Your task to perform on an android device: Check the news Image 0: 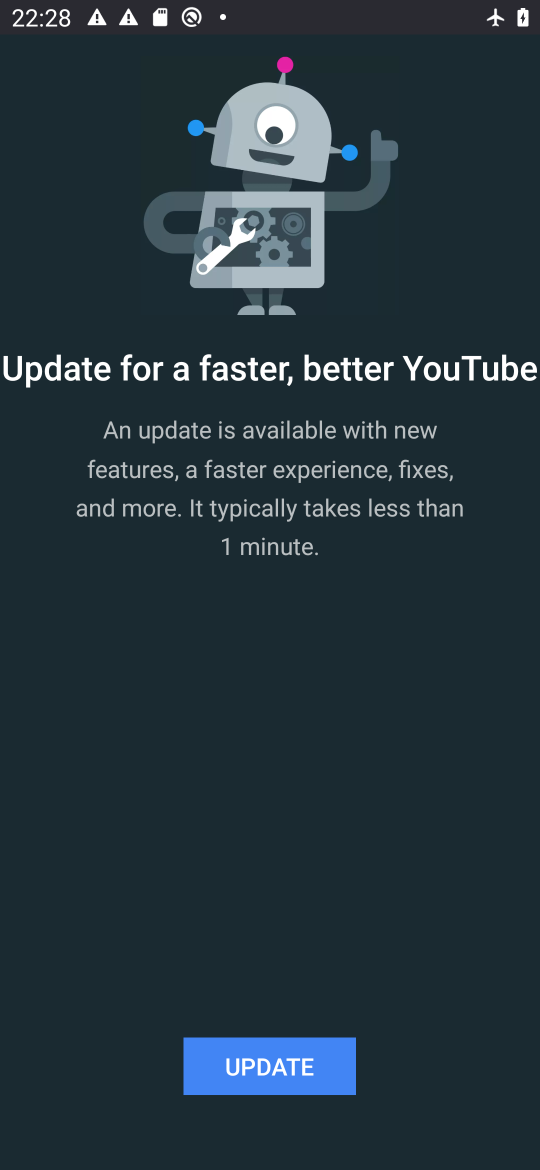
Step 0: press home button
Your task to perform on an android device: Check the news Image 1: 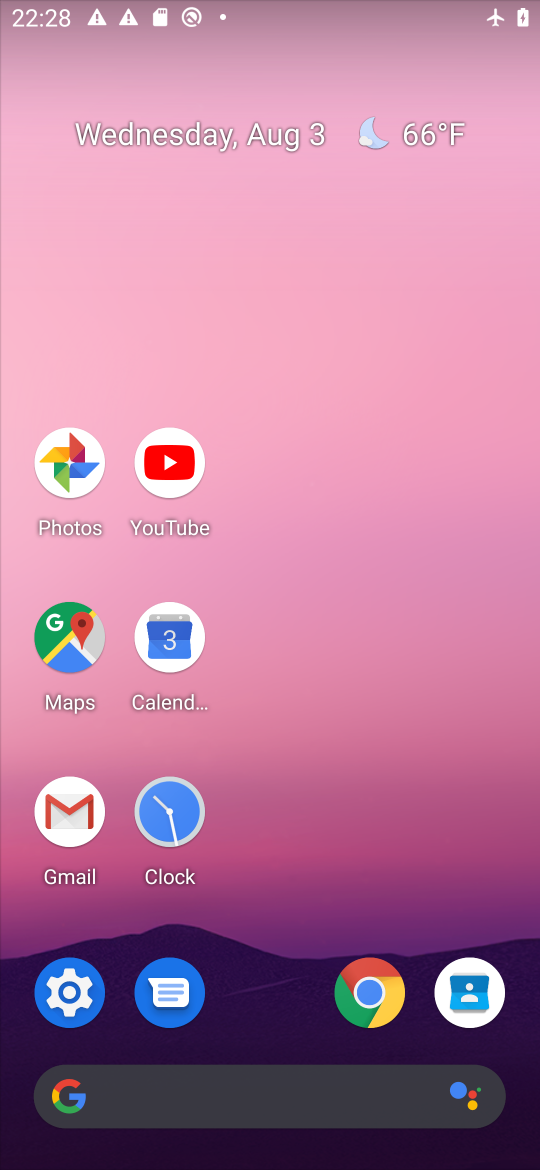
Step 1: drag from (25, 301) to (481, 367)
Your task to perform on an android device: Check the news Image 2: 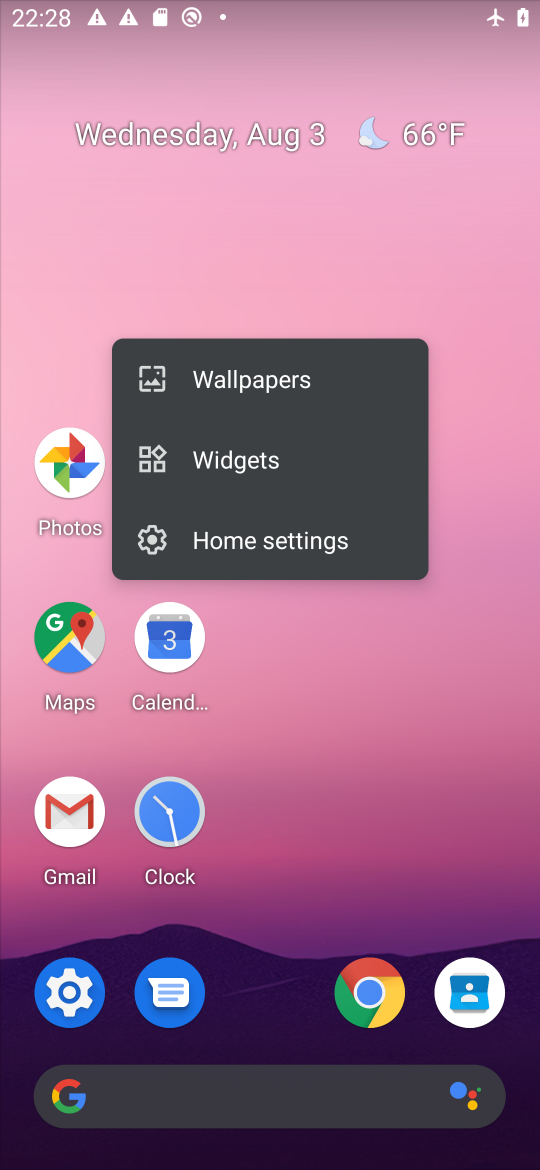
Step 2: click (481, 367)
Your task to perform on an android device: Check the news Image 3: 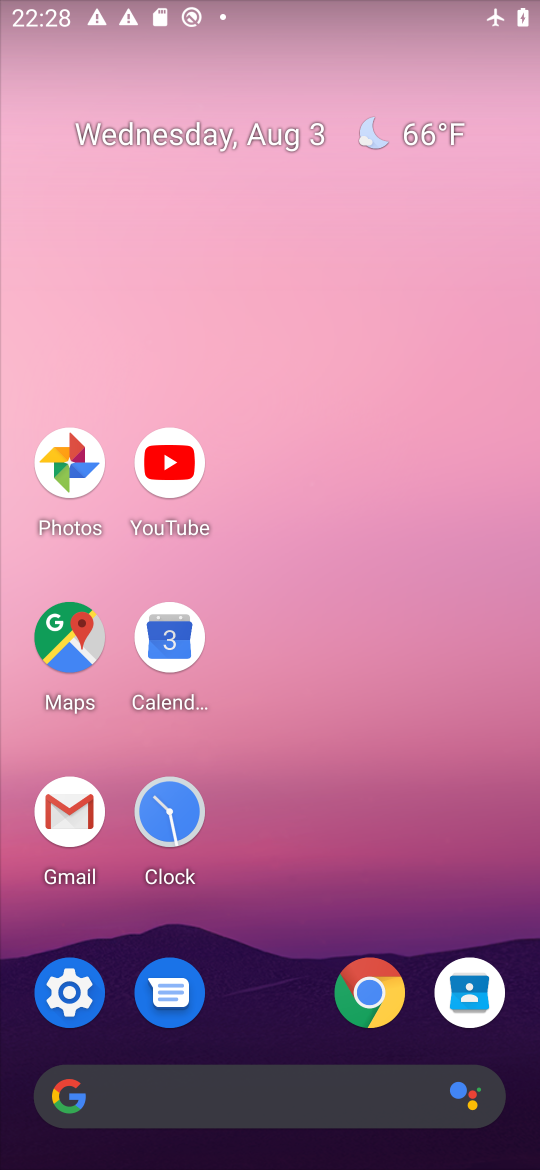
Step 3: click (65, 1084)
Your task to perform on an android device: Check the news Image 4: 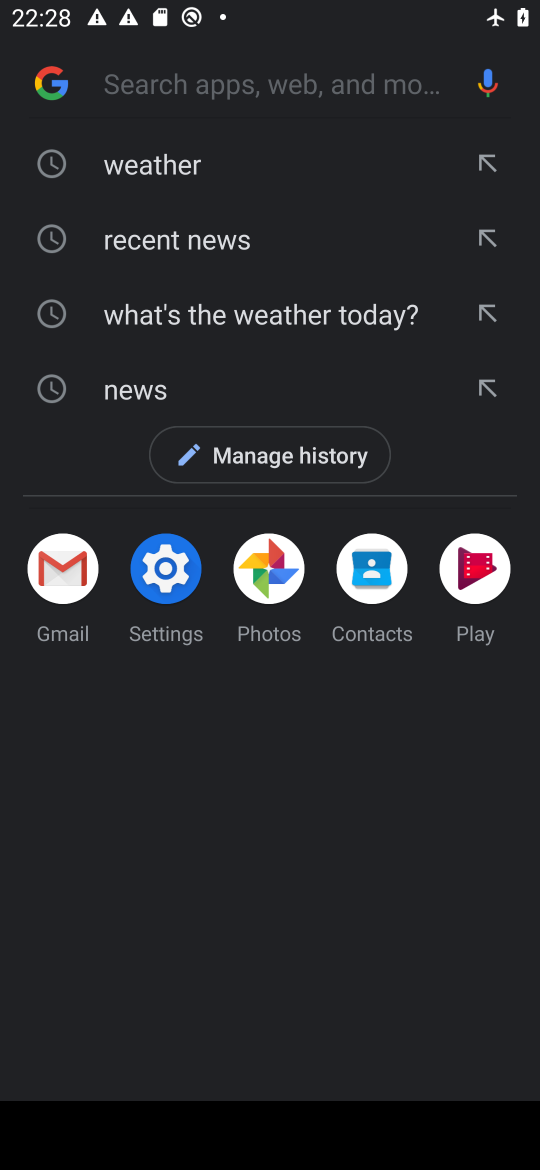
Step 4: click (46, 81)
Your task to perform on an android device: Check the news Image 5: 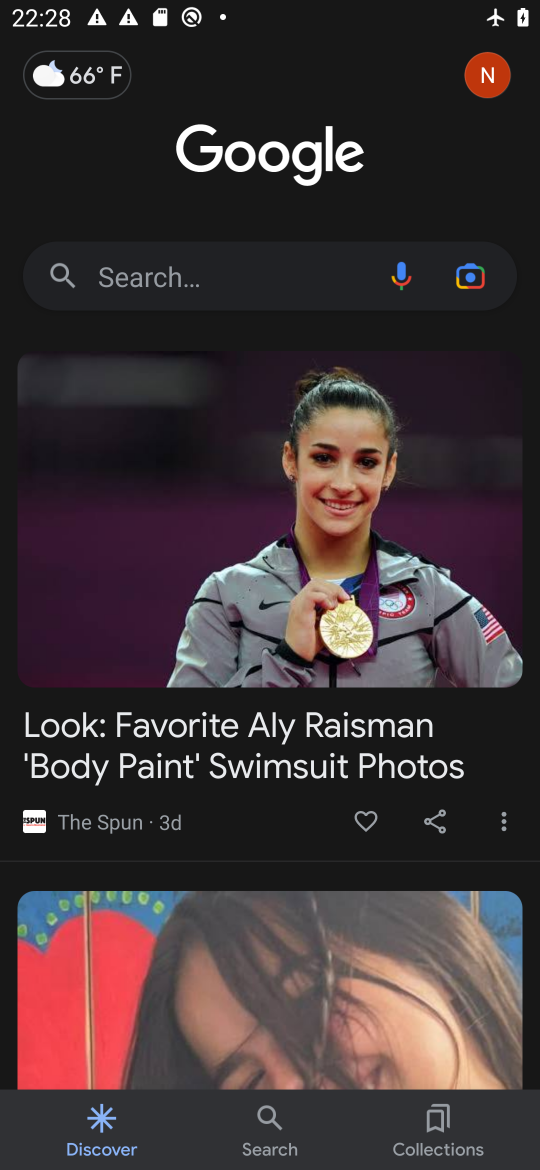
Step 5: task complete